Your task to perform on an android device: open the mobile data screen to see how much data has been used Image 0: 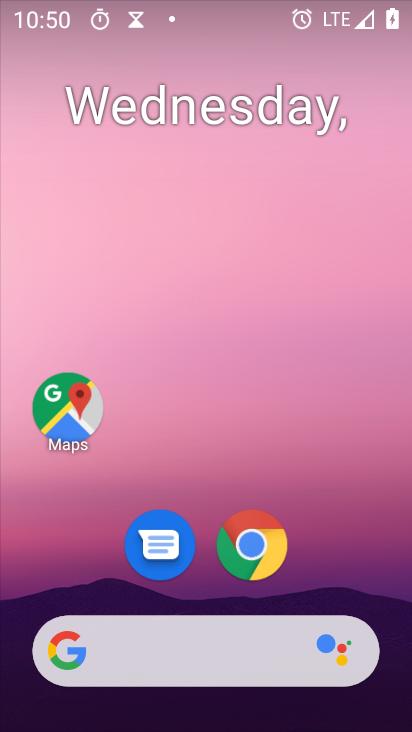
Step 0: press home button
Your task to perform on an android device: open the mobile data screen to see how much data has been used Image 1: 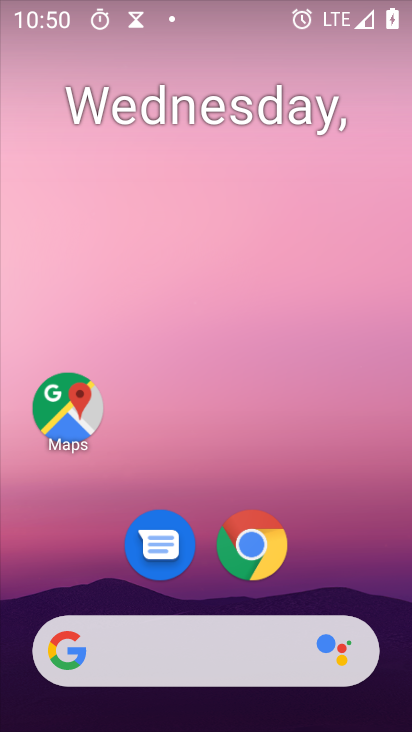
Step 1: drag from (158, 645) to (296, 214)
Your task to perform on an android device: open the mobile data screen to see how much data has been used Image 2: 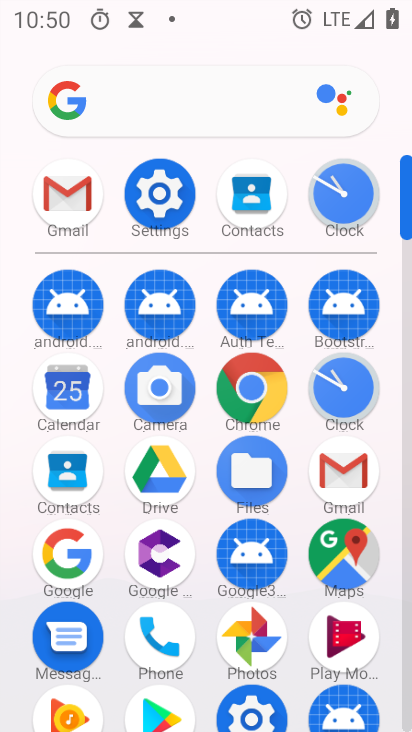
Step 2: click (166, 193)
Your task to perform on an android device: open the mobile data screen to see how much data has been used Image 3: 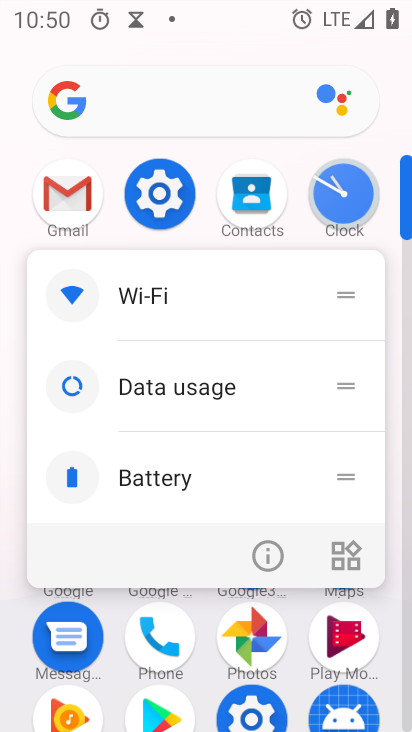
Step 3: click (164, 196)
Your task to perform on an android device: open the mobile data screen to see how much data has been used Image 4: 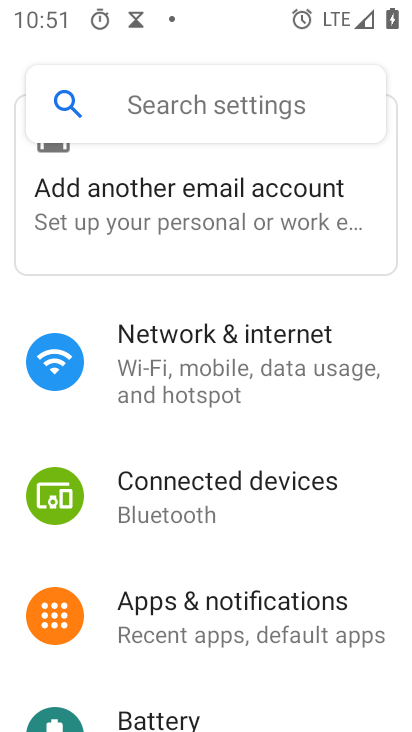
Step 4: click (243, 357)
Your task to perform on an android device: open the mobile data screen to see how much data has been used Image 5: 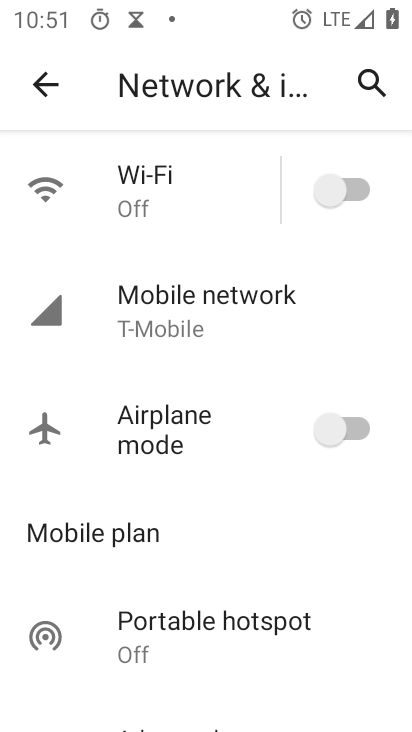
Step 5: click (182, 306)
Your task to perform on an android device: open the mobile data screen to see how much data has been used Image 6: 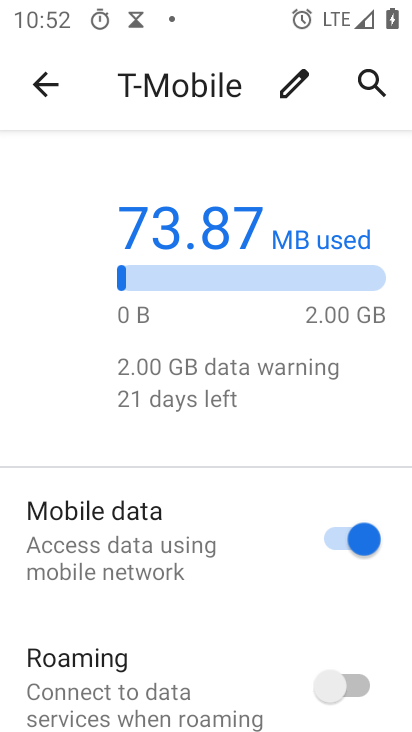
Step 6: task complete